Your task to perform on an android device: turn on sleep mode Image 0: 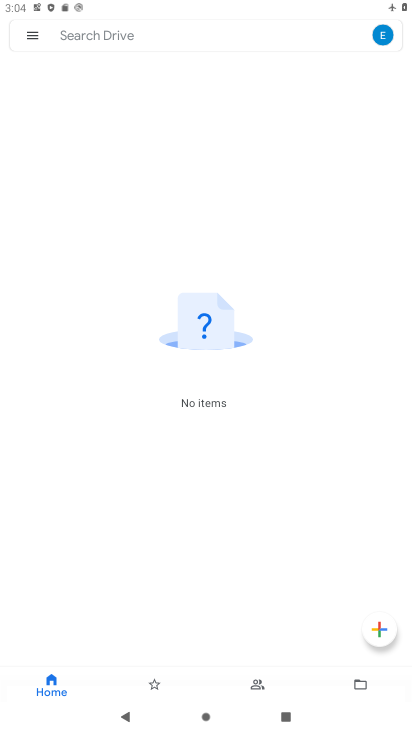
Step 0: press home button
Your task to perform on an android device: turn on sleep mode Image 1: 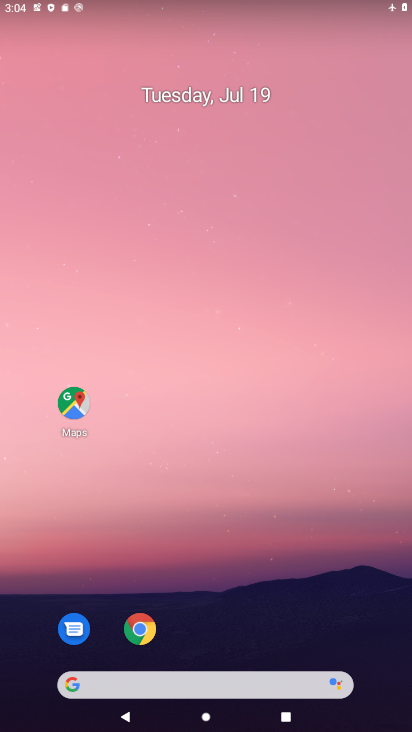
Step 1: drag from (197, 682) to (155, 337)
Your task to perform on an android device: turn on sleep mode Image 2: 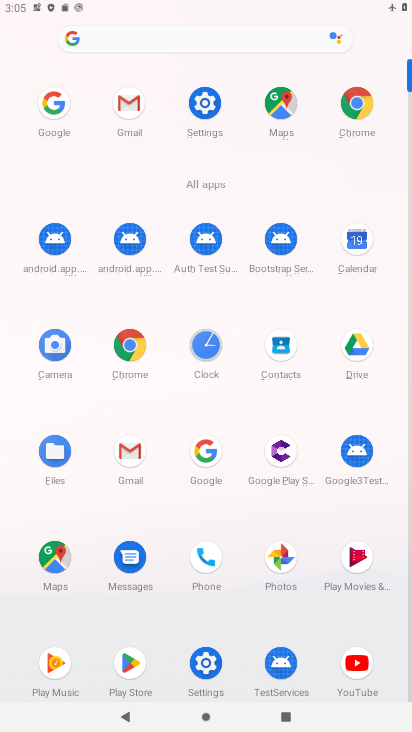
Step 2: click (199, 117)
Your task to perform on an android device: turn on sleep mode Image 3: 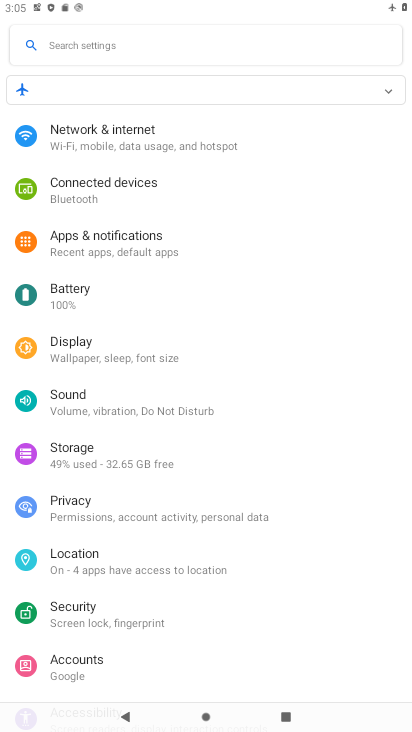
Step 3: click (87, 356)
Your task to perform on an android device: turn on sleep mode Image 4: 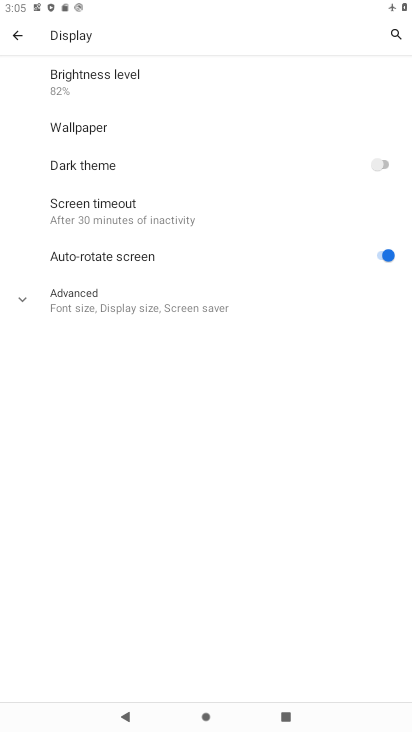
Step 4: click (116, 304)
Your task to perform on an android device: turn on sleep mode Image 5: 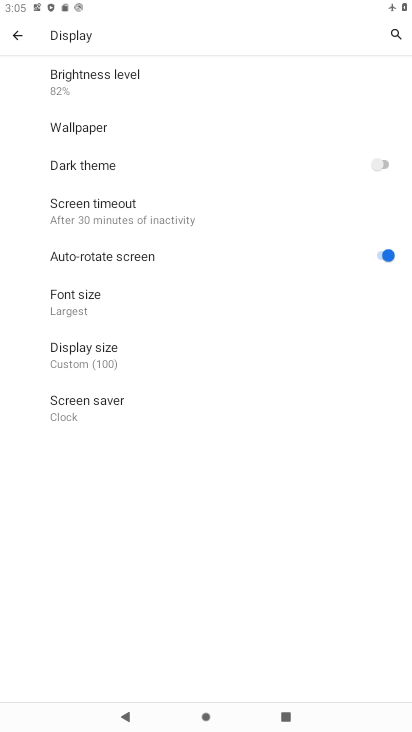
Step 5: task complete